Your task to perform on an android device: Go to display settings Image 0: 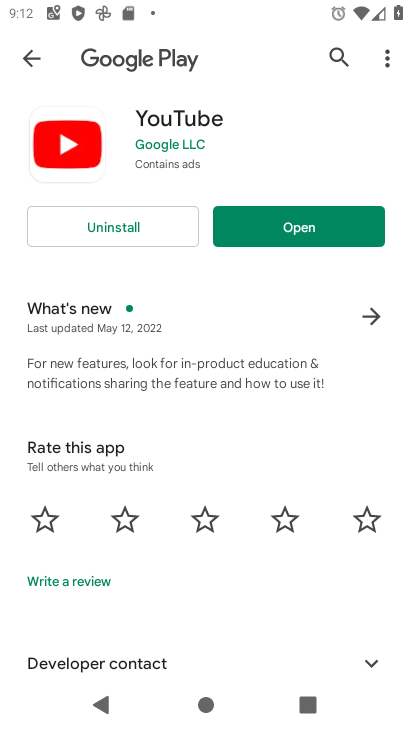
Step 0: press home button
Your task to perform on an android device: Go to display settings Image 1: 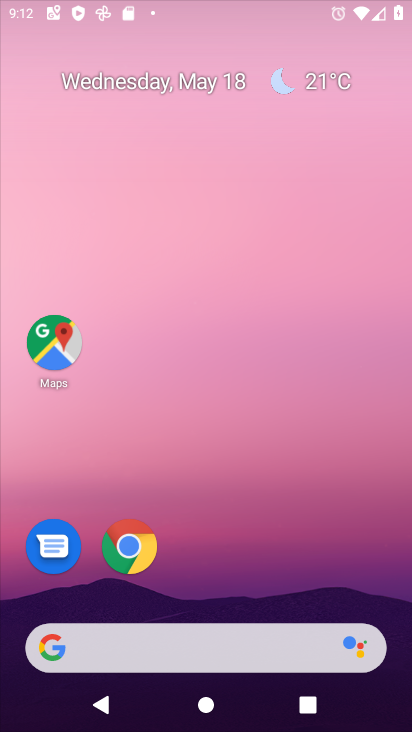
Step 1: drag from (403, 654) to (335, 36)
Your task to perform on an android device: Go to display settings Image 2: 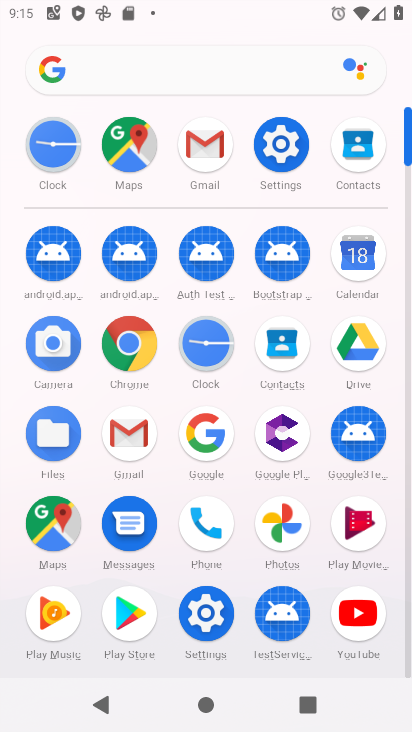
Step 2: click (192, 628)
Your task to perform on an android device: Go to display settings Image 3: 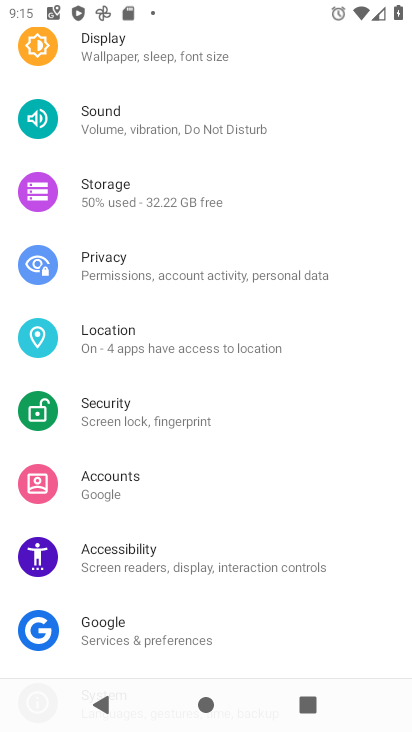
Step 3: click (145, 53)
Your task to perform on an android device: Go to display settings Image 4: 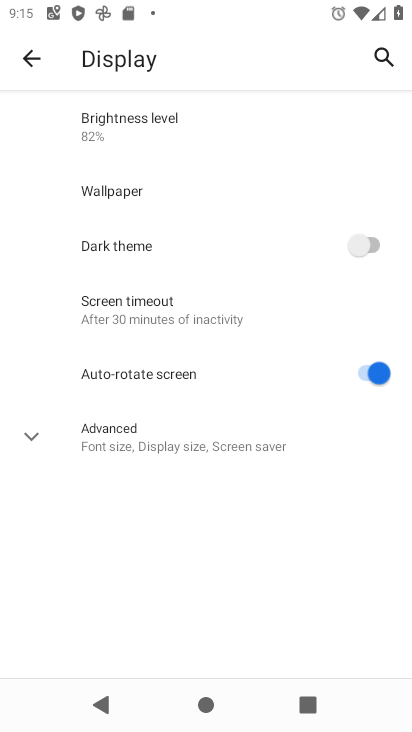
Step 4: task complete